Your task to perform on an android device: toggle priority inbox in the gmail app Image 0: 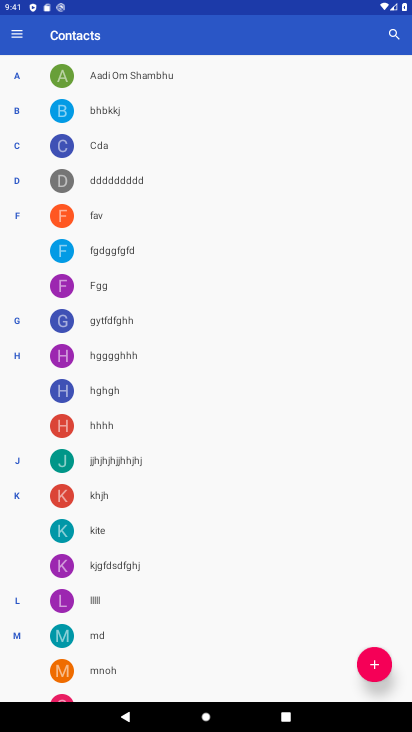
Step 0: task complete